Your task to perform on an android device: Clear all items from cart on costco.com. Image 0: 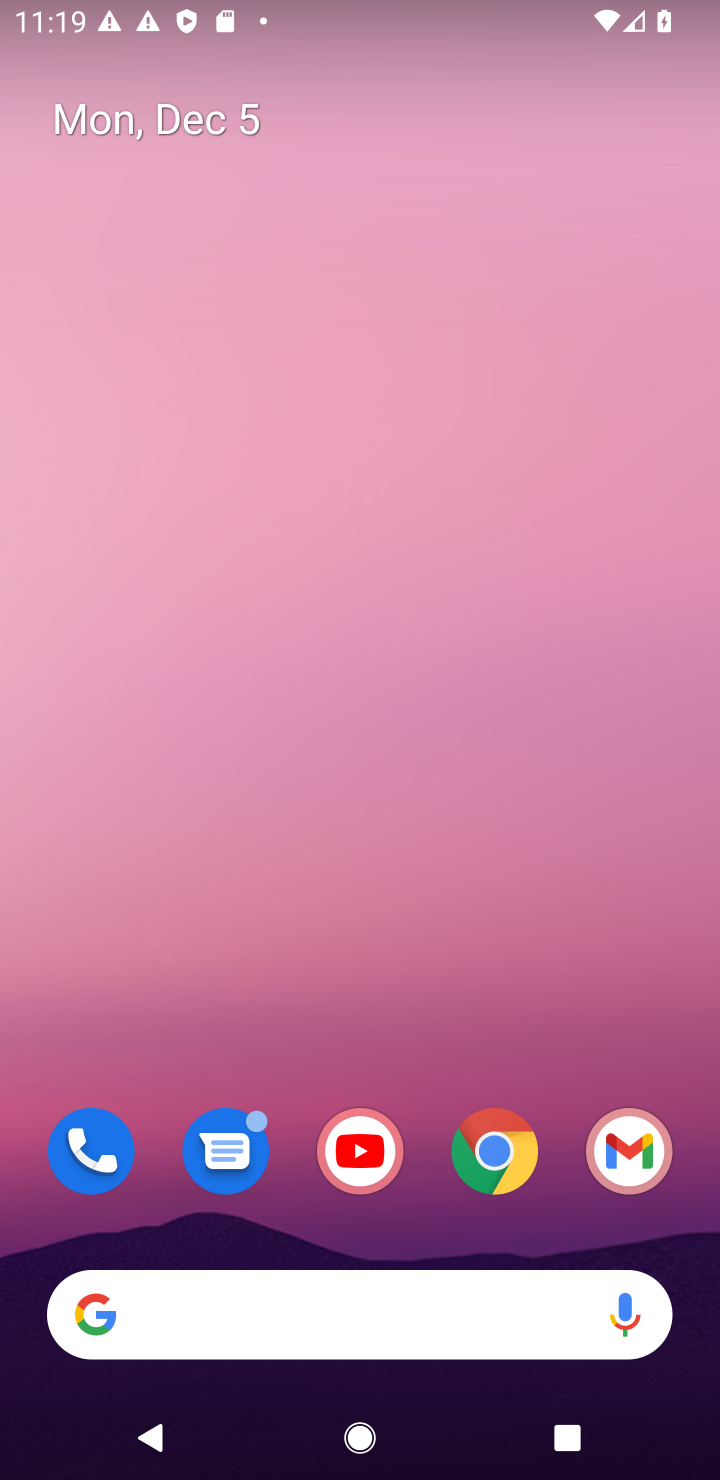
Step 0: click (505, 1156)
Your task to perform on an android device: Clear all items from cart on costco.com. Image 1: 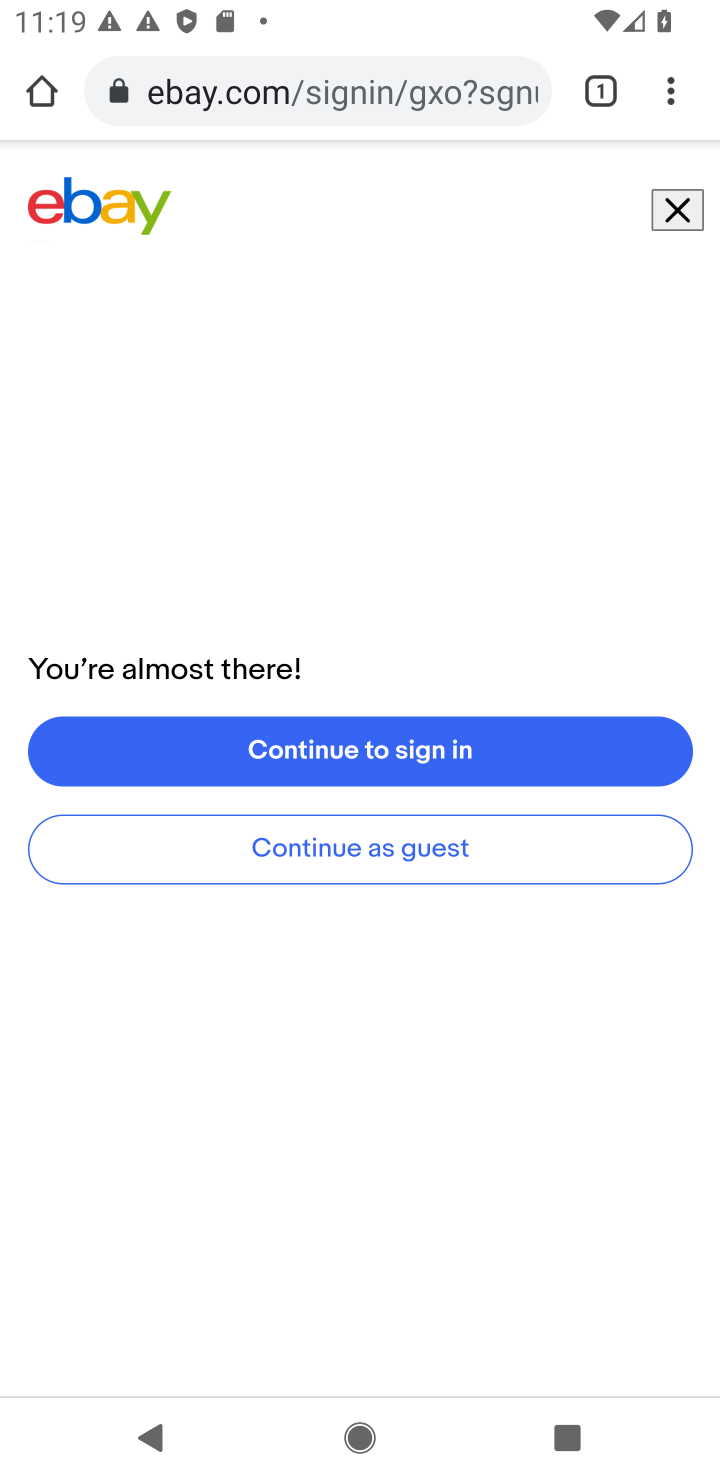
Step 1: click (356, 109)
Your task to perform on an android device: Clear all items from cart on costco.com. Image 2: 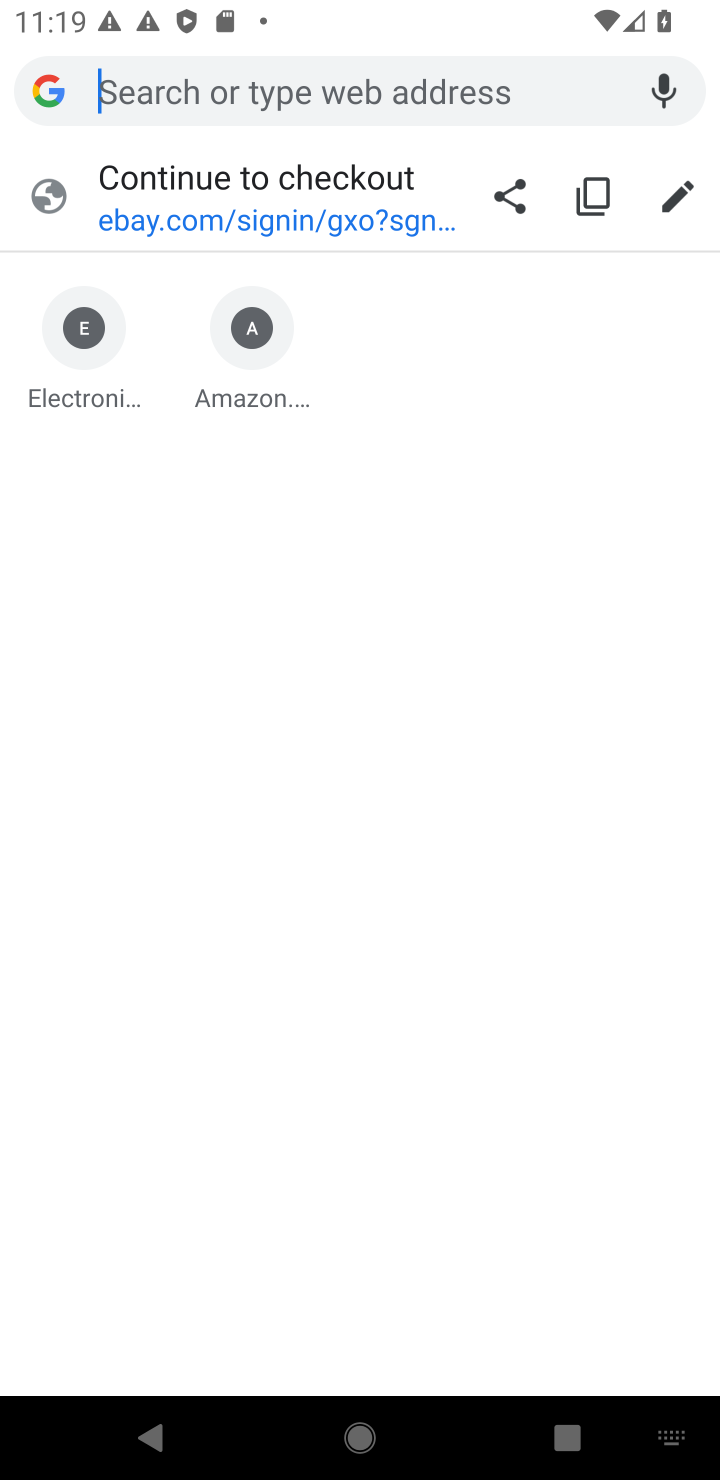
Step 2: type "costco.com"
Your task to perform on an android device: Clear all items from cart on costco.com. Image 3: 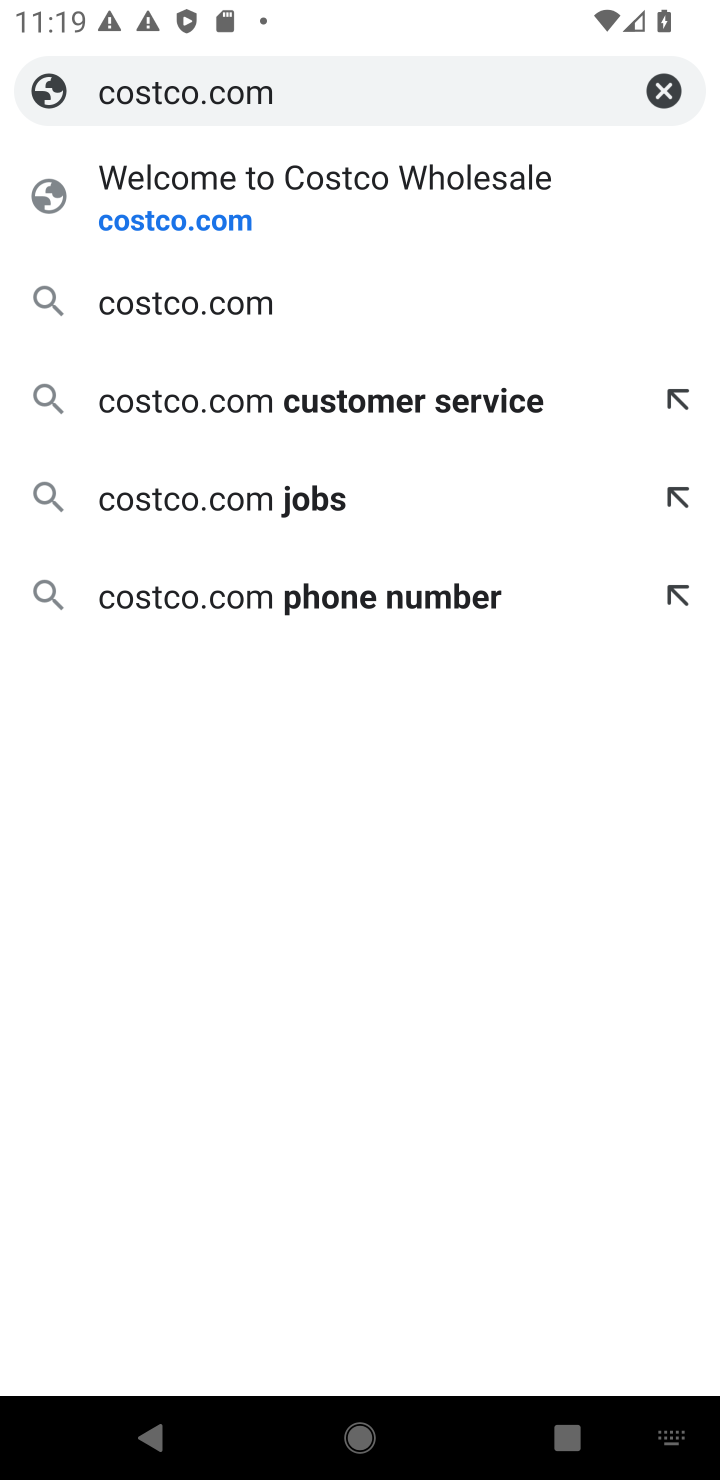
Step 3: click (154, 221)
Your task to perform on an android device: Clear all items from cart on costco.com. Image 4: 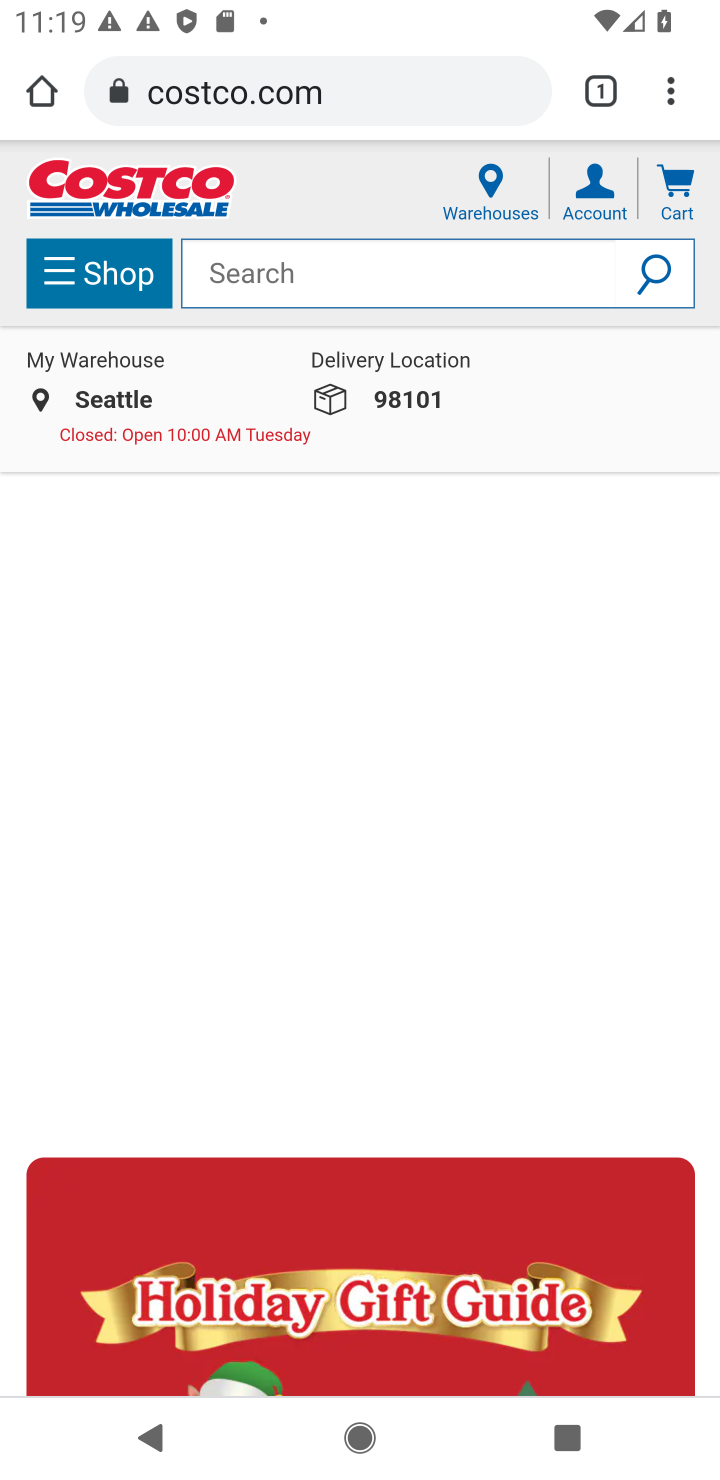
Step 4: click (680, 198)
Your task to perform on an android device: Clear all items from cart on costco.com. Image 5: 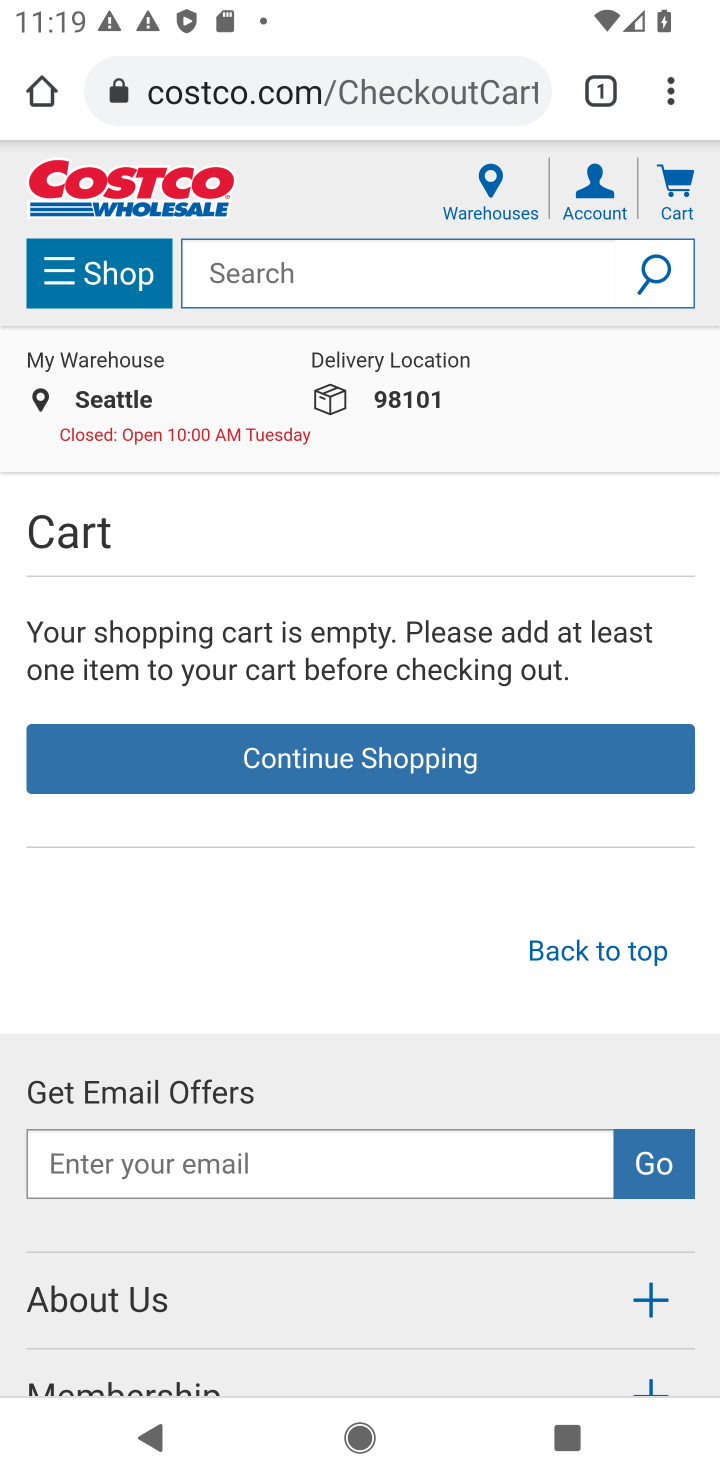
Step 5: task complete